Your task to perform on an android device: Is it going to rain tomorrow? Image 0: 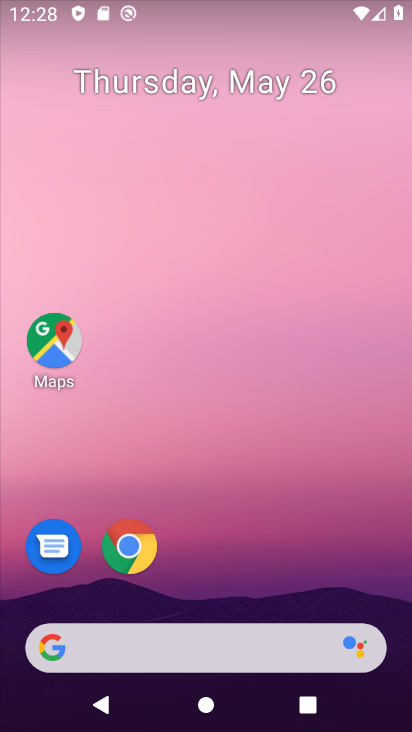
Step 0: drag from (387, 637) to (265, 54)
Your task to perform on an android device: Is it going to rain tomorrow? Image 1: 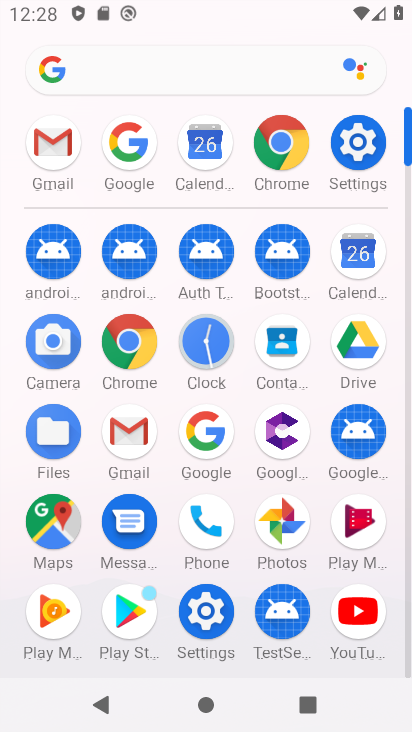
Step 1: click (203, 433)
Your task to perform on an android device: Is it going to rain tomorrow? Image 2: 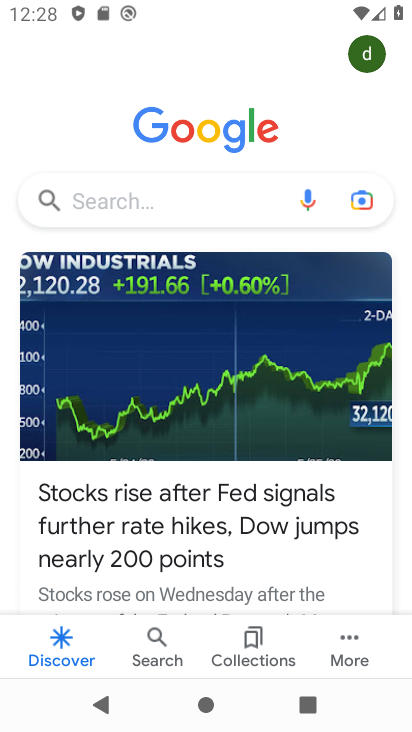
Step 2: click (164, 205)
Your task to perform on an android device: Is it going to rain tomorrow? Image 3: 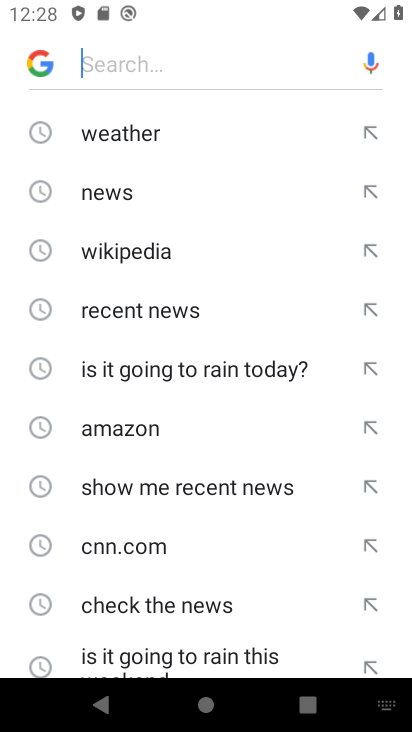
Step 3: drag from (207, 598) to (236, 239)
Your task to perform on an android device: Is it going to rain tomorrow? Image 4: 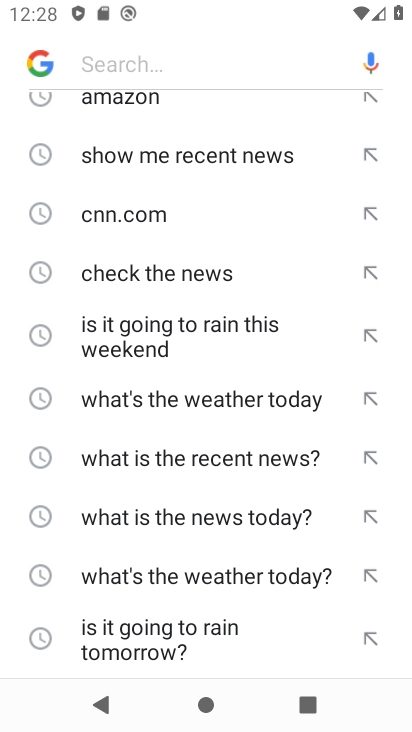
Step 4: drag from (162, 604) to (187, 348)
Your task to perform on an android device: Is it going to rain tomorrow? Image 5: 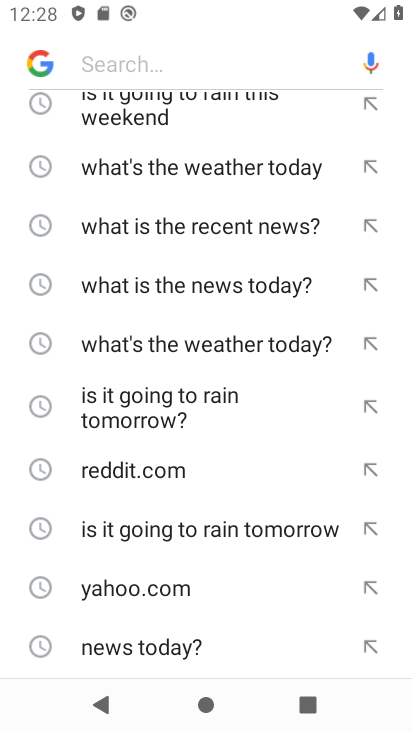
Step 5: click (179, 413)
Your task to perform on an android device: Is it going to rain tomorrow? Image 6: 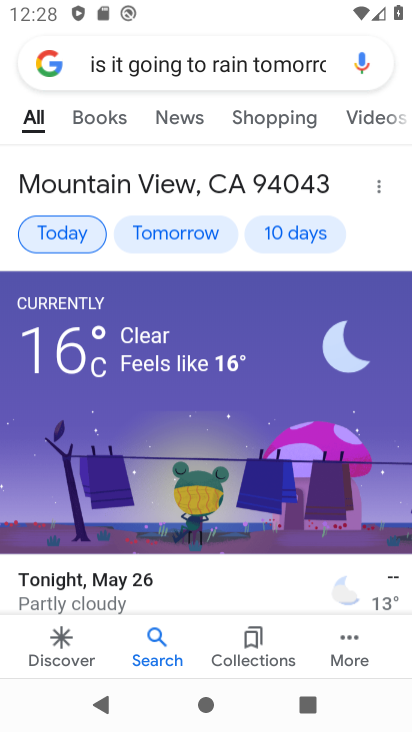
Step 6: task complete